Your task to perform on an android device: Open battery settings Image 0: 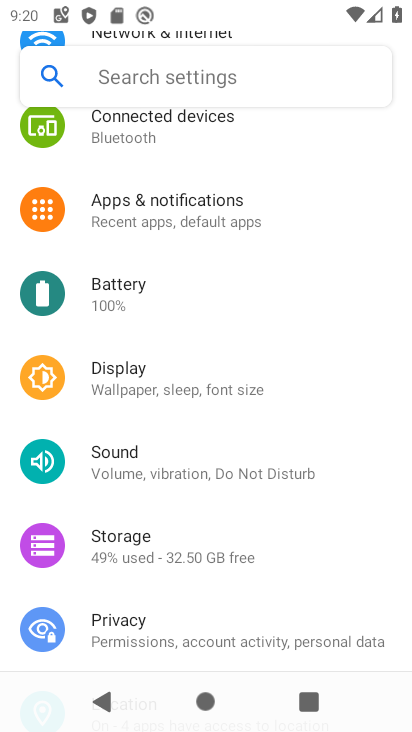
Step 0: click (155, 289)
Your task to perform on an android device: Open battery settings Image 1: 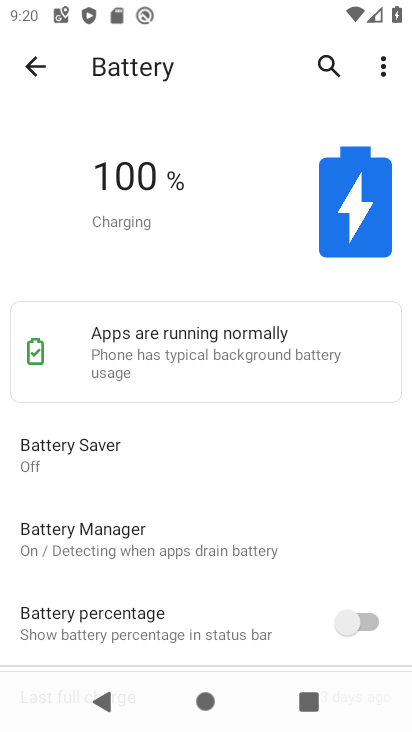
Step 1: task complete